Your task to perform on an android device: change notification settings in the gmail app Image 0: 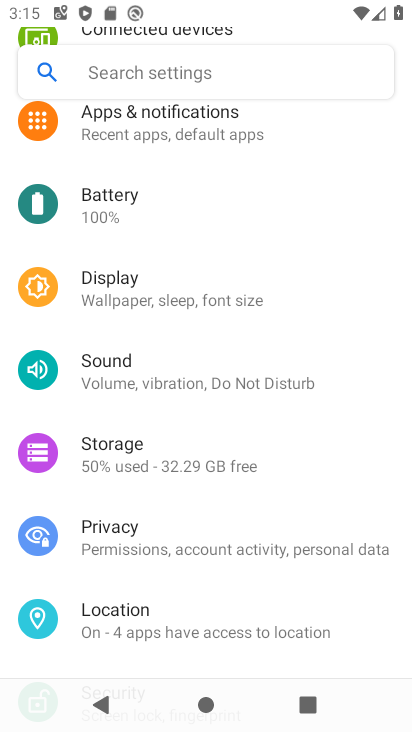
Step 0: press home button
Your task to perform on an android device: change notification settings in the gmail app Image 1: 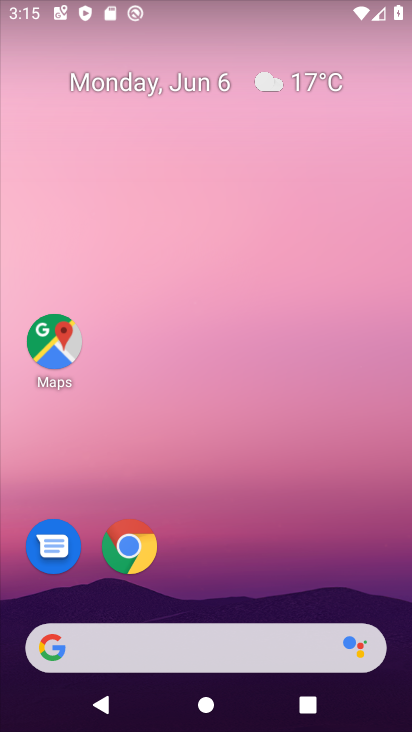
Step 1: drag from (245, 591) to (270, 100)
Your task to perform on an android device: change notification settings in the gmail app Image 2: 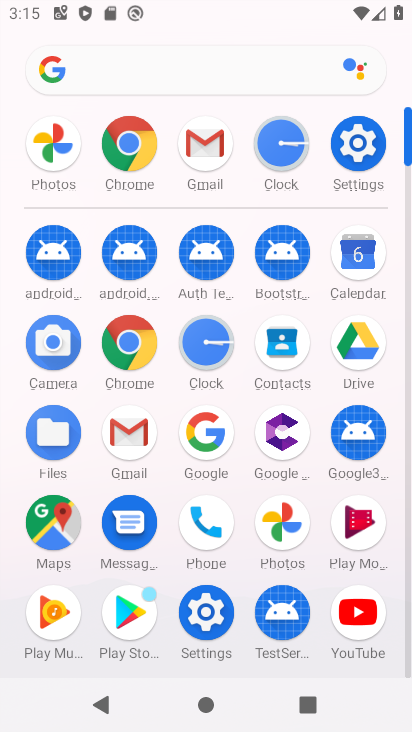
Step 2: click (200, 162)
Your task to perform on an android device: change notification settings in the gmail app Image 3: 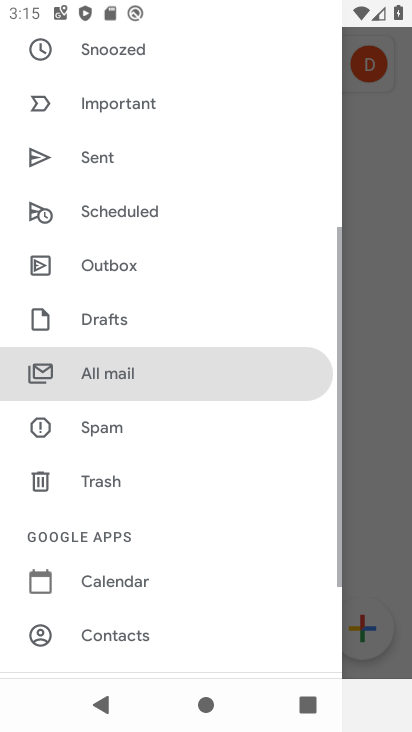
Step 3: task complete